Your task to perform on an android device: see sites visited before in the chrome app Image 0: 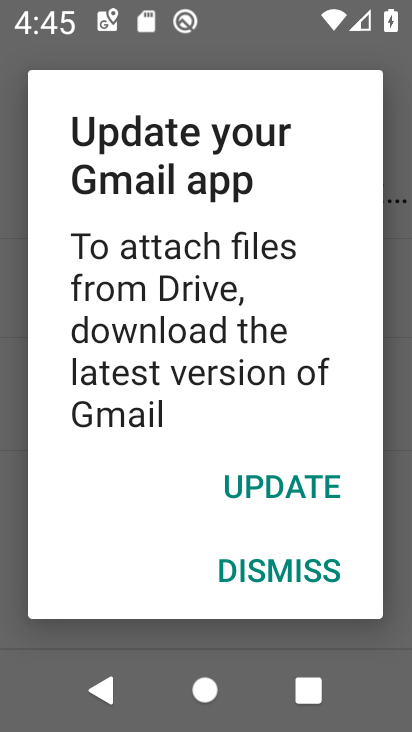
Step 0: press home button
Your task to perform on an android device: see sites visited before in the chrome app Image 1: 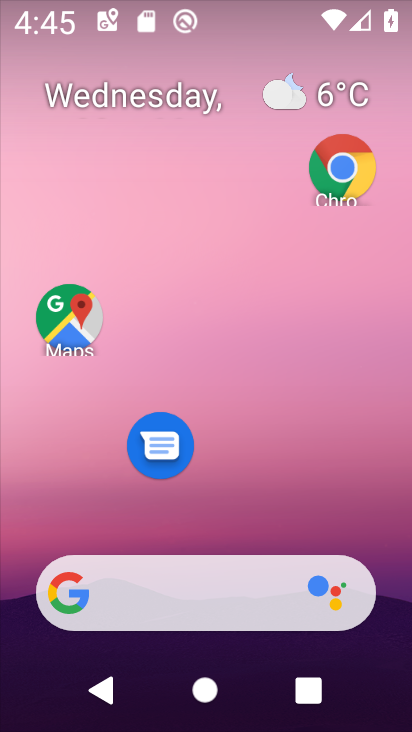
Step 1: click (344, 171)
Your task to perform on an android device: see sites visited before in the chrome app Image 2: 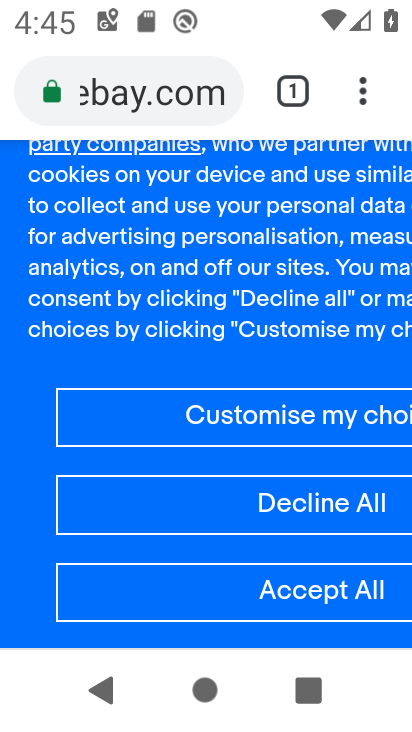
Step 2: click (374, 96)
Your task to perform on an android device: see sites visited before in the chrome app Image 3: 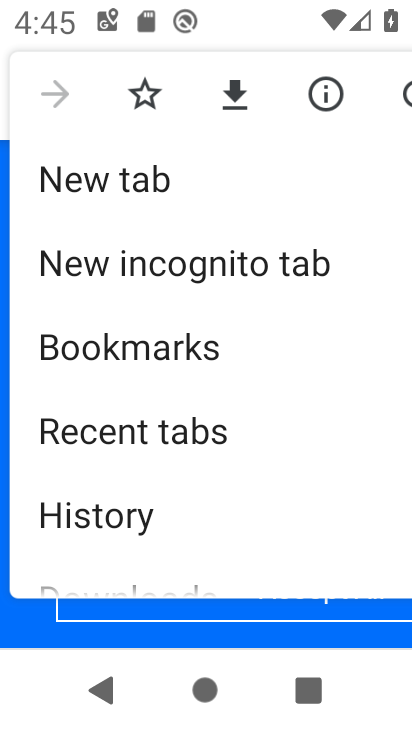
Step 3: drag from (150, 441) to (178, 270)
Your task to perform on an android device: see sites visited before in the chrome app Image 4: 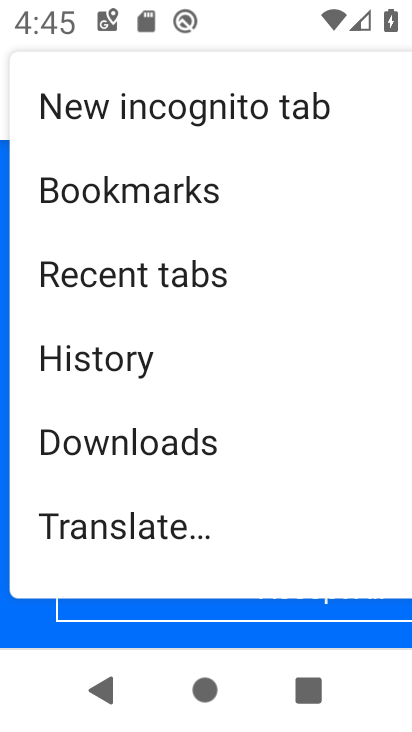
Step 4: click (127, 364)
Your task to perform on an android device: see sites visited before in the chrome app Image 5: 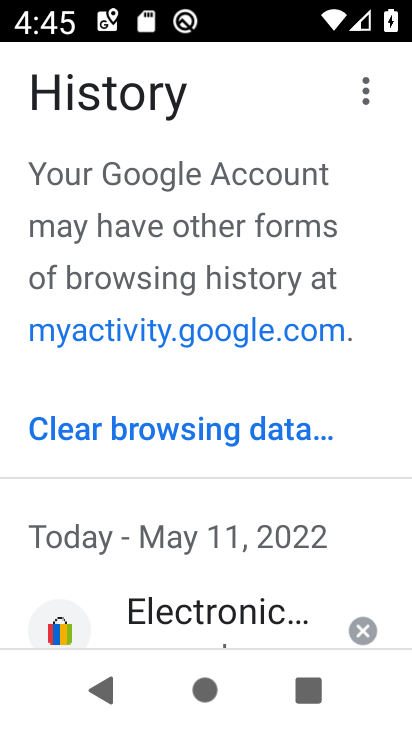
Step 5: task complete